Your task to perform on an android device: Open the phone app and click the voicemail tab. Image 0: 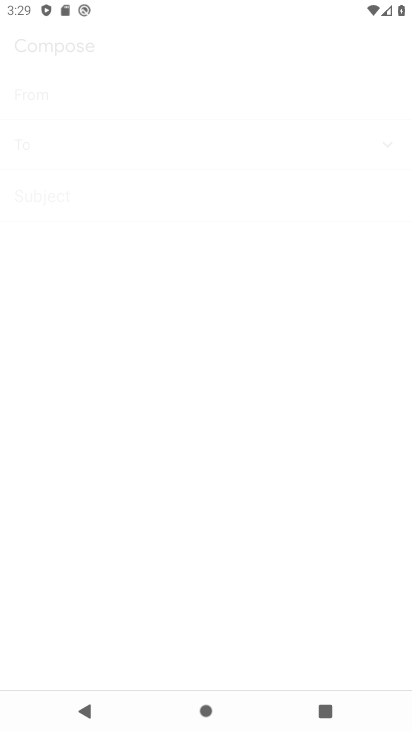
Step 0: press home button
Your task to perform on an android device: Open the phone app and click the voicemail tab. Image 1: 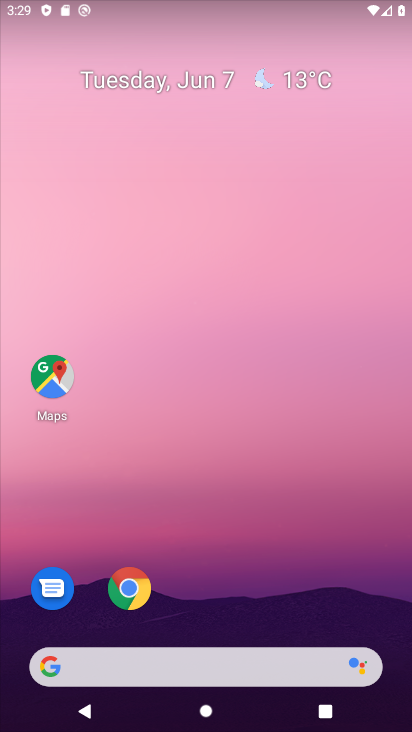
Step 1: drag from (343, 574) to (306, 12)
Your task to perform on an android device: Open the phone app and click the voicemail tab. Image 2: 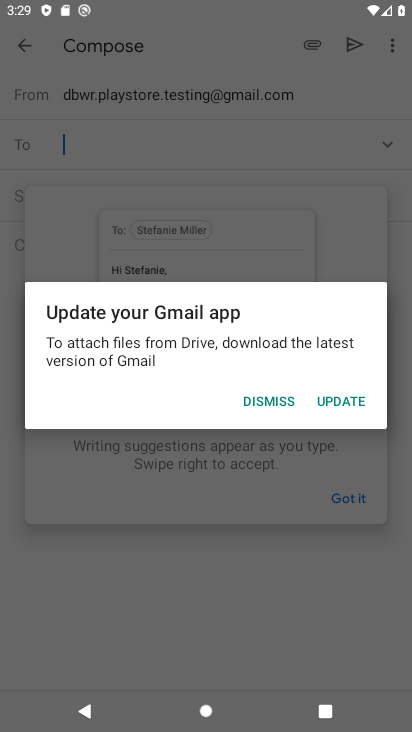
Step 2: press home button
Your task to perform on an android device: Open the phone app and click the voicemail tab. Image 3: 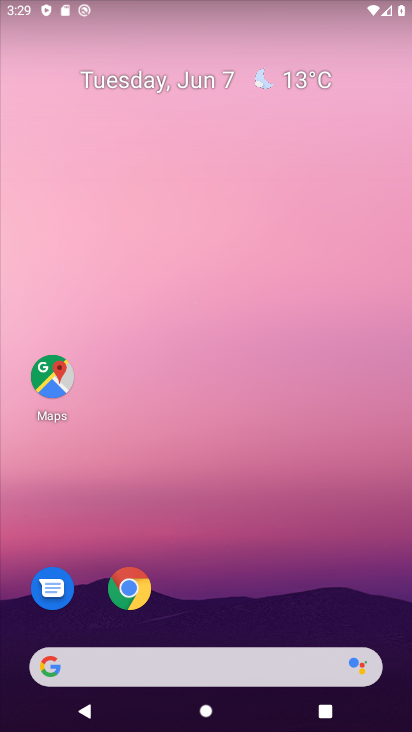
Step 3: drag from (285, 507) to (257, 16)
Your task to perform on an android device: Open the phone app and click the voicemail tab. Image 4: 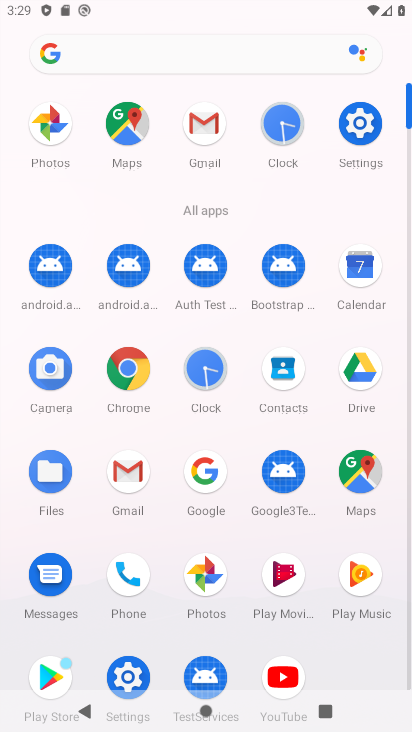
Step 4: click (135, 575)
Your task to perform on an android device: Open the phone app and click the voicemail tab. Image 5: 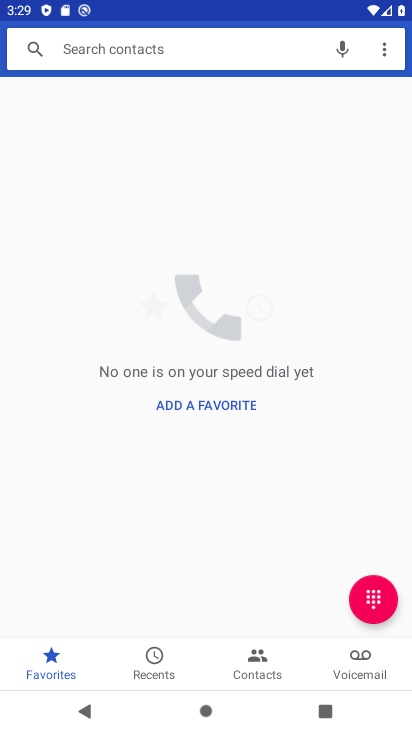
Step 5: click (350, 663)
Your task to perform on an android device: Open the phone app and click the voicemail tab. Image 6: 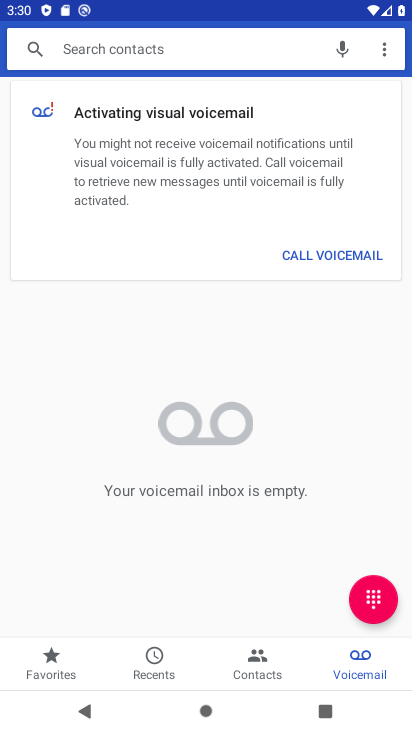
Step 6: task complete